Your task to perform on an android device: Open Google Maps Image 0: 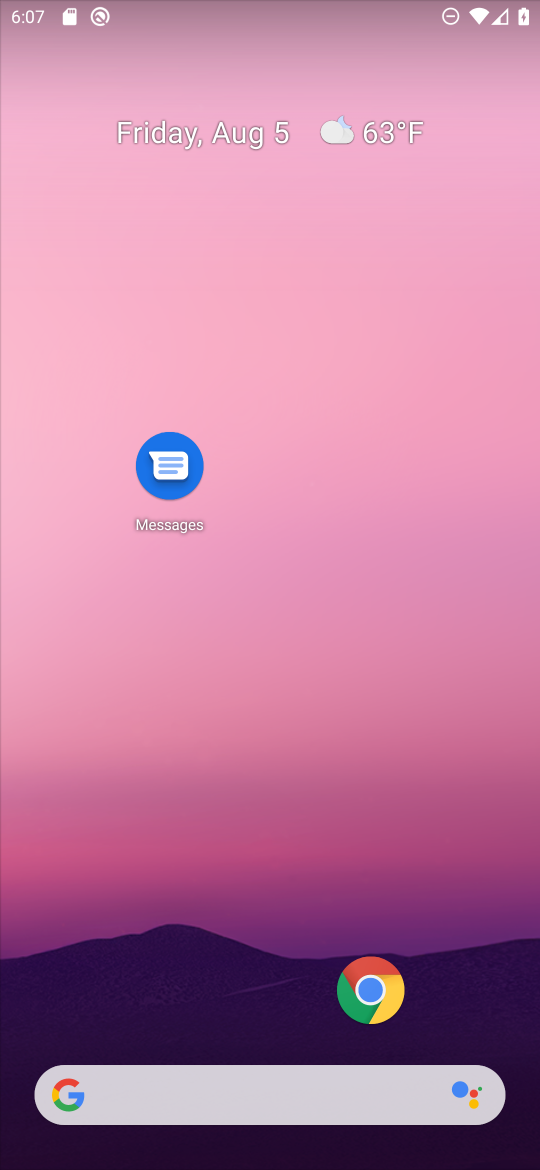
Step 0: drag from (191, 969) to (172, 643)
Your task to perform on an android device: Open Google Maps Image 1: 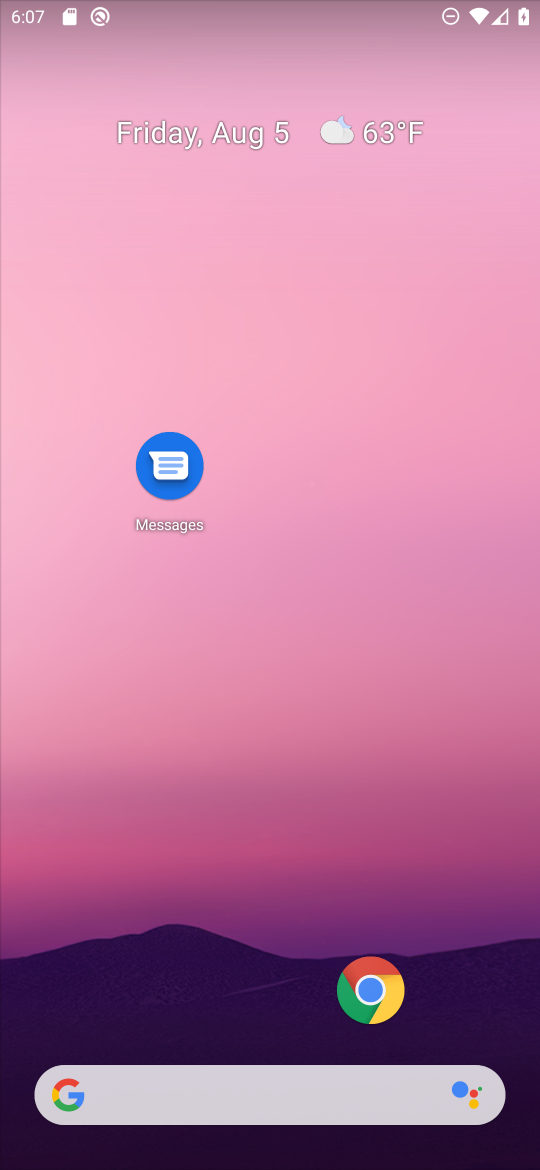
Step 1: drag from (258, 1011) to (171, 445)
Your task to perform on an android device: Open Google Maps Image 2: 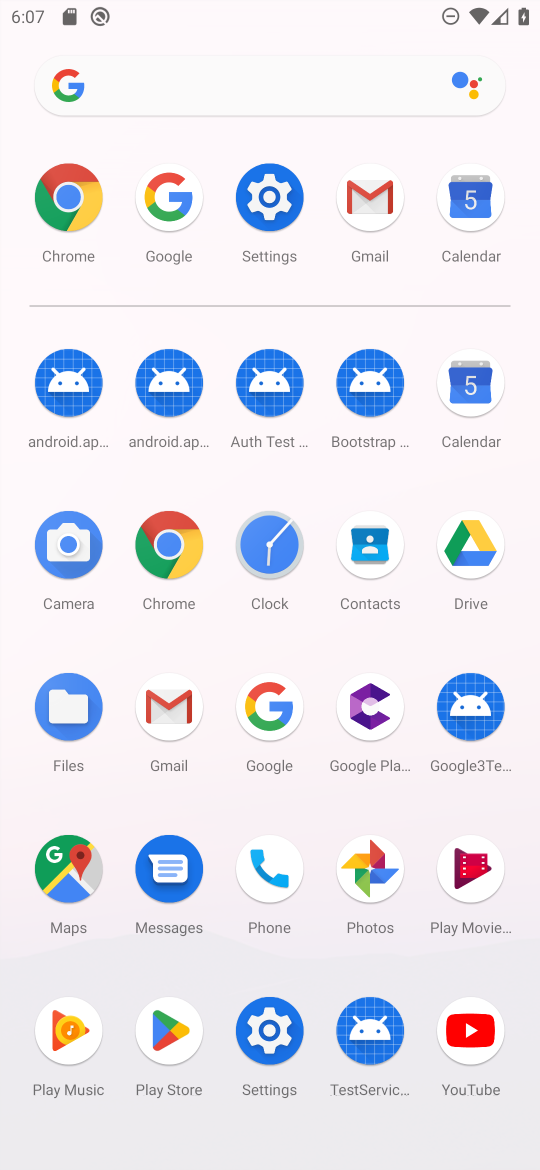
Step 2: click (72, 873)
Your task to perform on an android device: Open Google Maps Image 3: 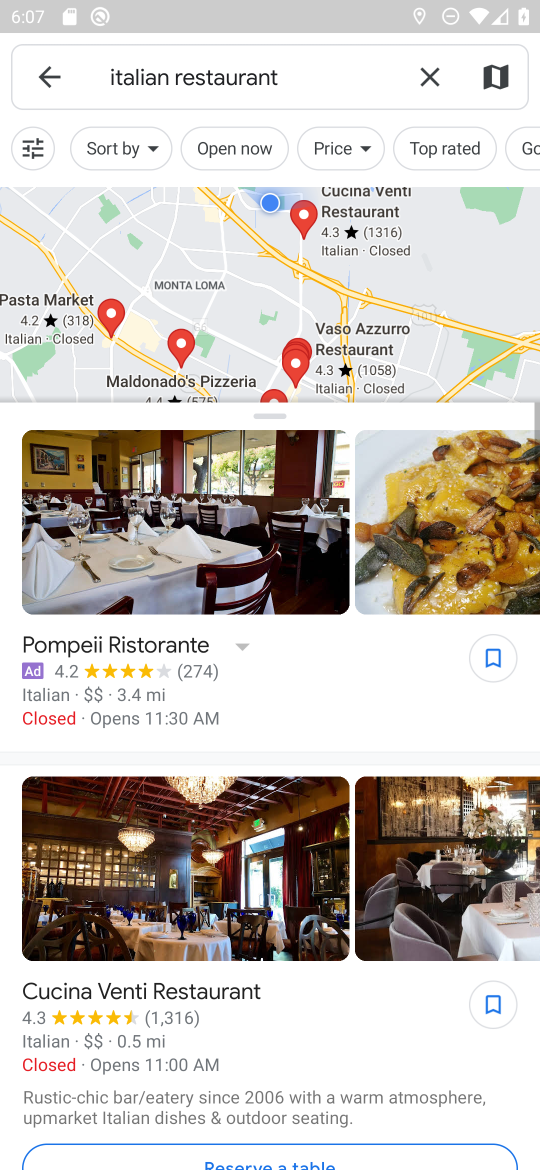
Step 3: click (482, 68)
Your task to perform on an android device: Open Google Maps Image 4: 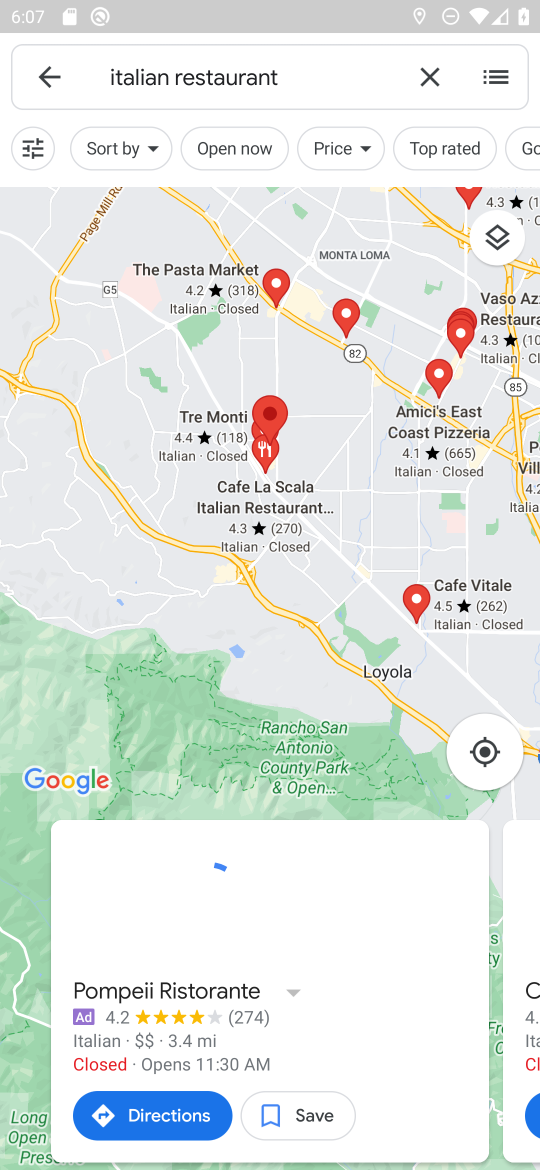
Step 4: click (426, 71)
Your task to perform on an android device: Open Google Maps Image 5: 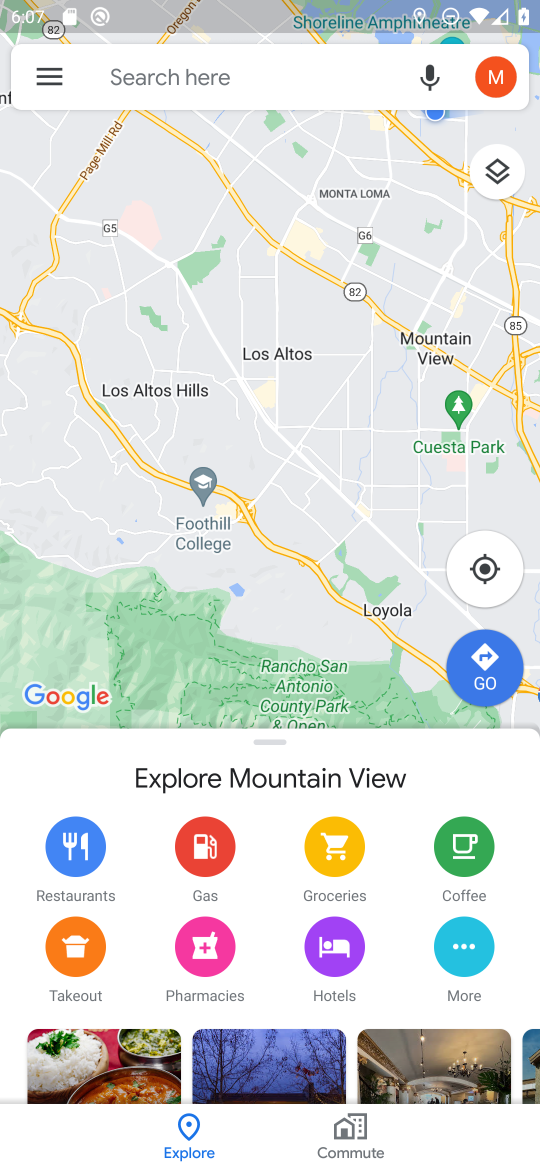
Step 5: task complete